Your task to perform on an android device: Search for the best rated running shoes on Nike.com Image 0: 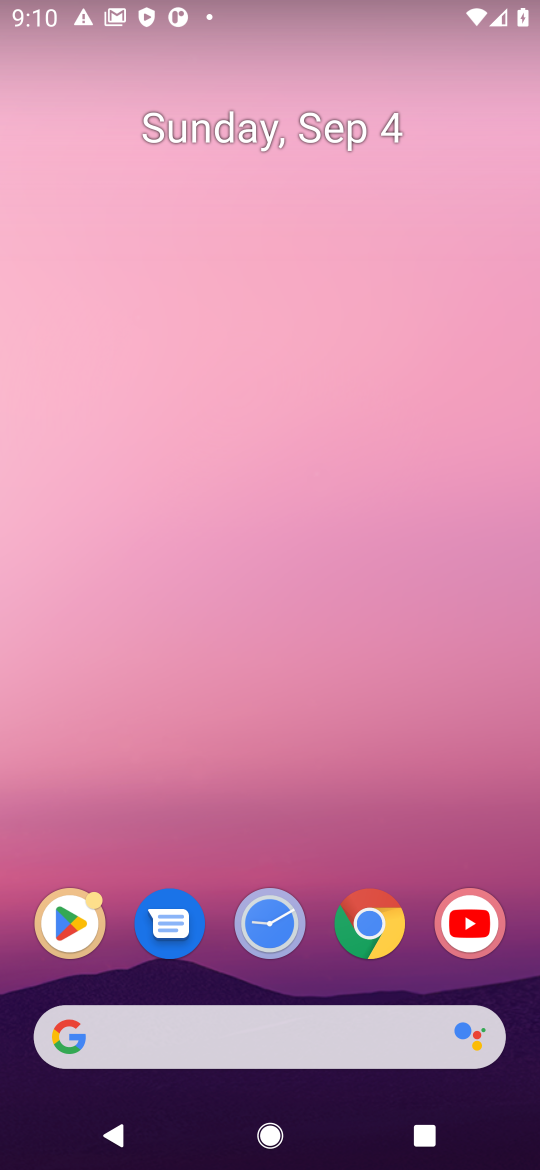
Step 0: click (389, 1031)
Your task to perform on an android device: Search for the best rated running shoes on Nike.com Image 1: 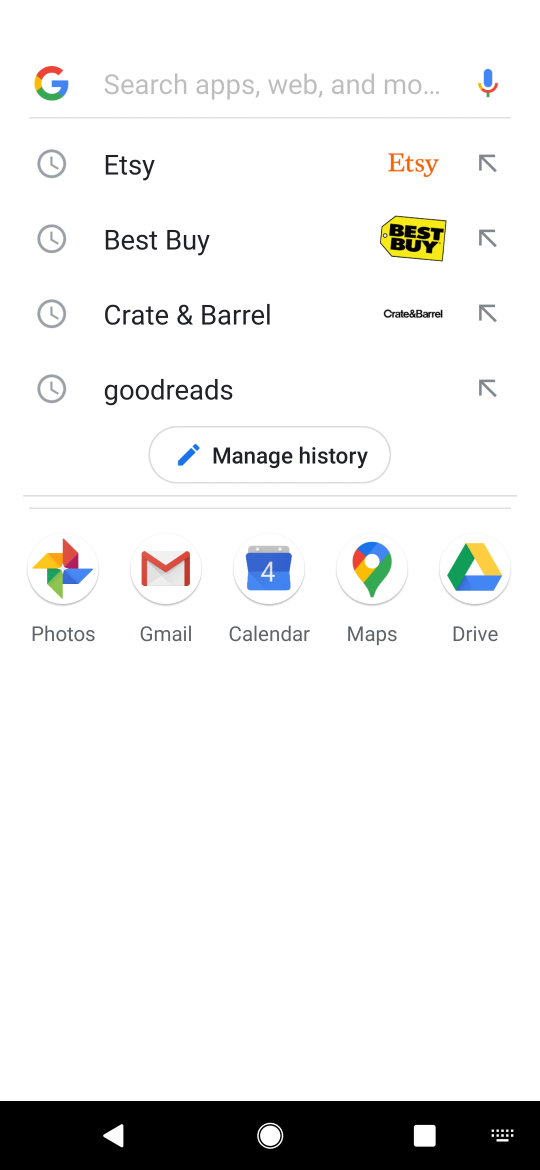
Step 1: press enter
Your task to perform on an android device: Search for the best rated running shoes on Nike.com Image 2: 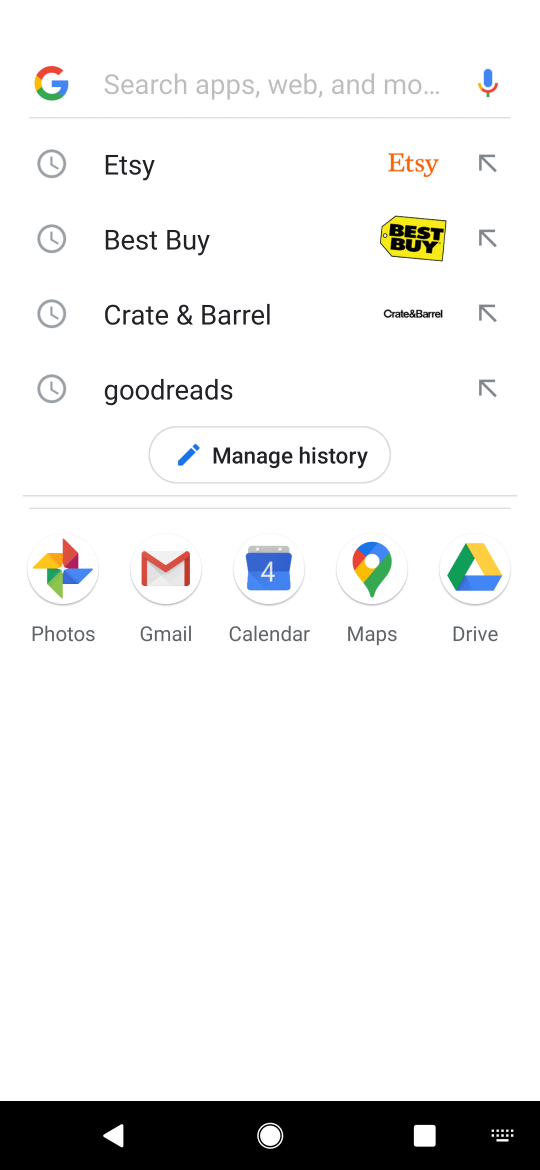
Step 2: type "nike.com"
Your task to perform on an android device: Search for the best rated running shoes on Nike.com Image 3: 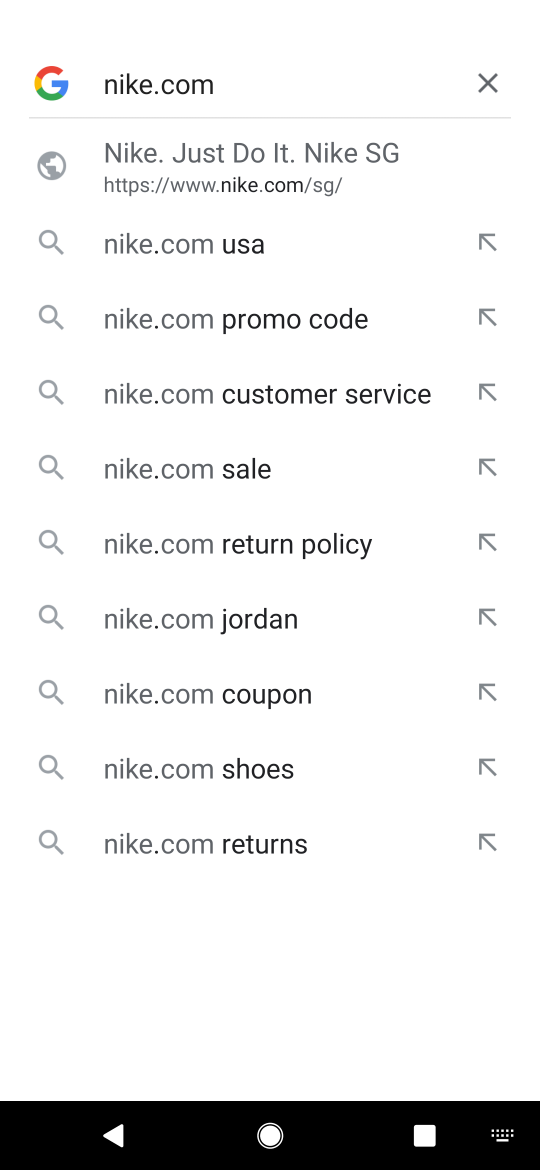
Step 3: click (242, 151)
Your task to perform on an android device: Search for the best rated running shoes on Nike.com Image 4: 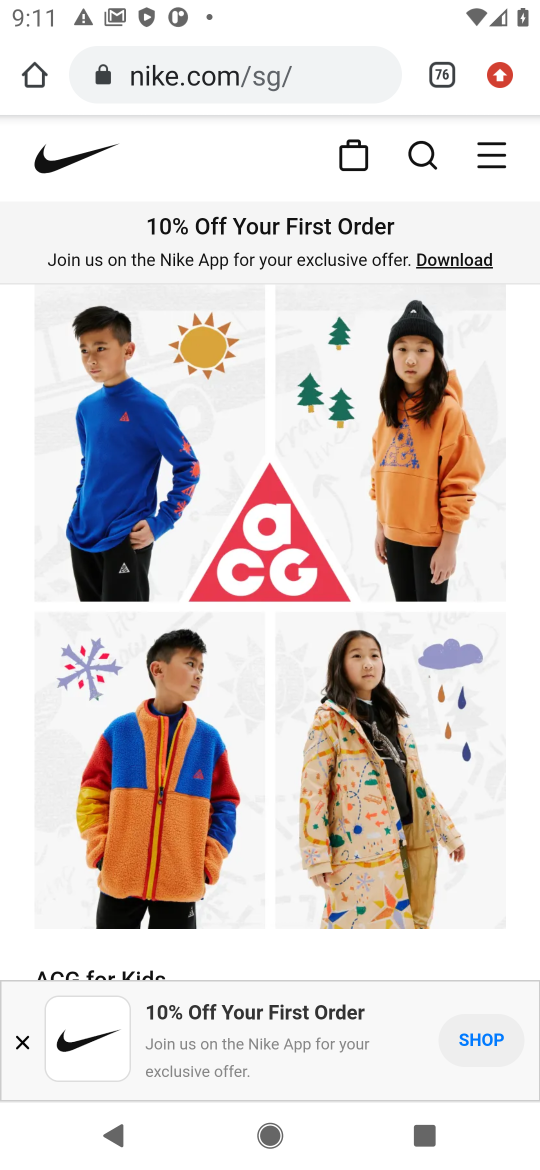
Step 4: click (411, 146)
Your task to perform on an android device: Search for the best rated running shoes on Nike.com Image 5: 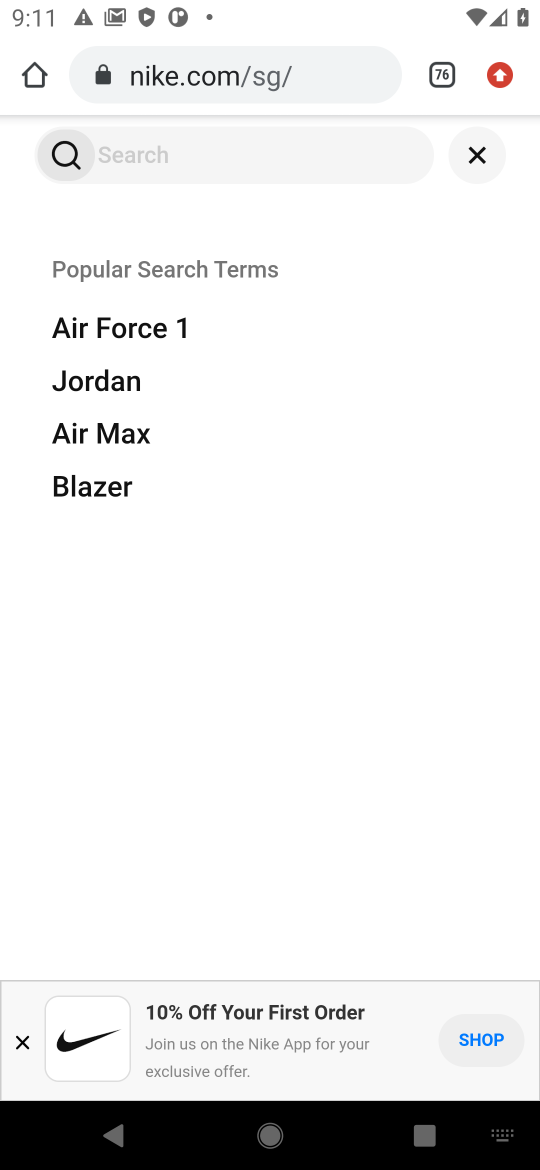
Step 5: press enter
Your task to perform on an android device: Search for the best rated running shoes on Nike.com Image 6: 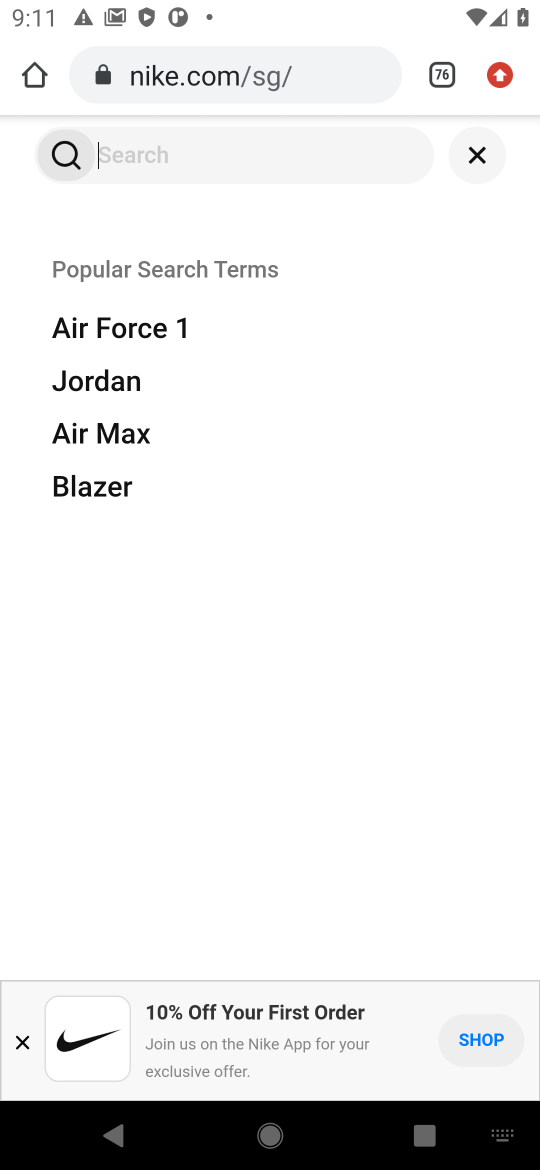
Step 6: type "running shoes"
Your task to perform on an android device: Search for the best rated running shoes on Nike.com Image 7: 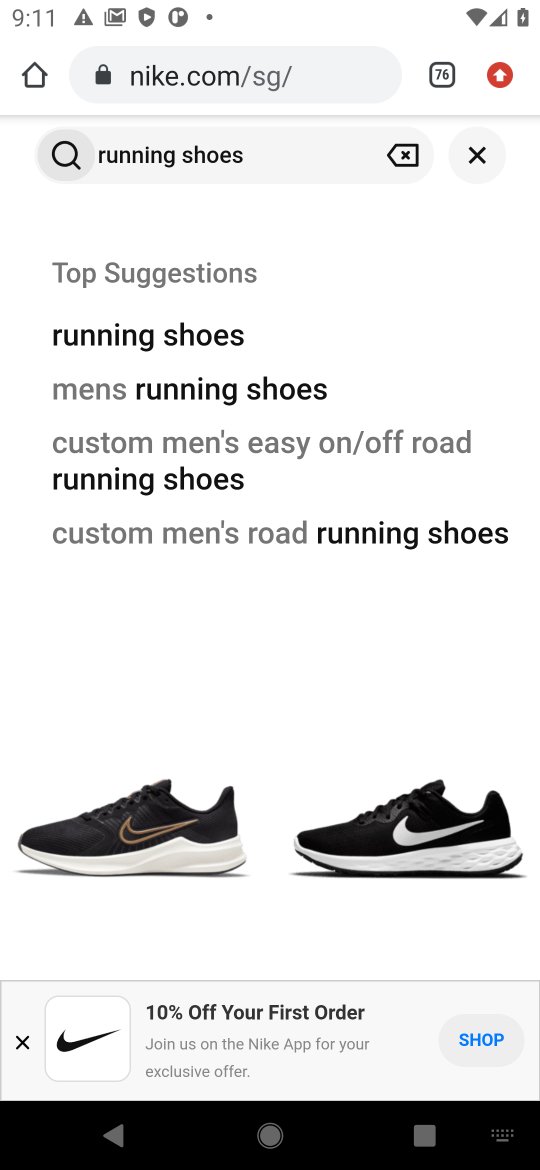
Step 7: click (173, 333)
Your task to perform on an android device: Search for the best rated running shoes on Nike.com Image 8: 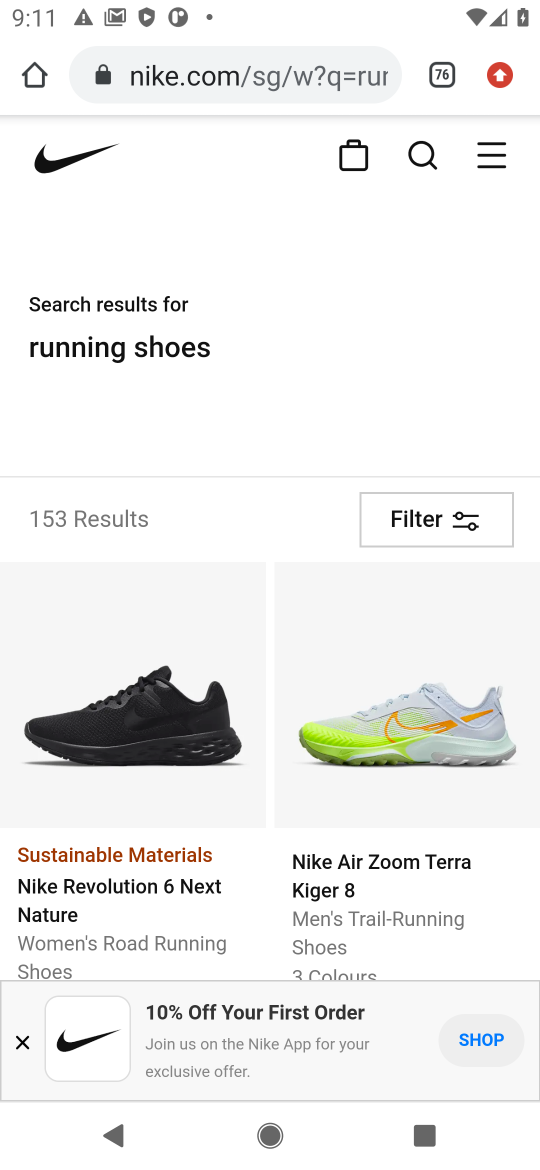
Step 8: task complete